Your task to perform on an android device: see creations saved in the google photos Image 0: 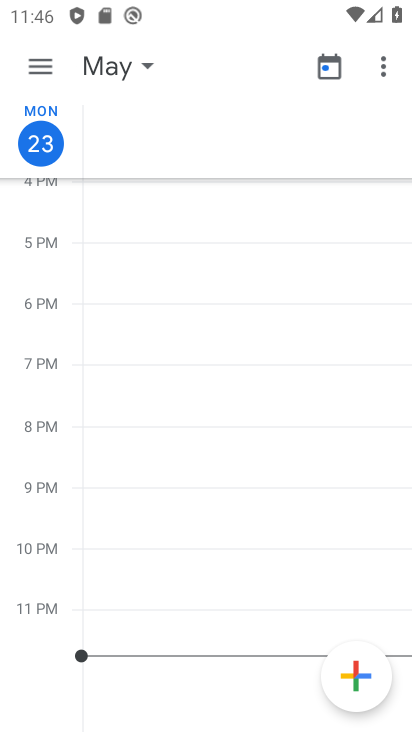
Step 0: press home button
Your task to perform on an android device: see creations saved in the google photos Image 1: 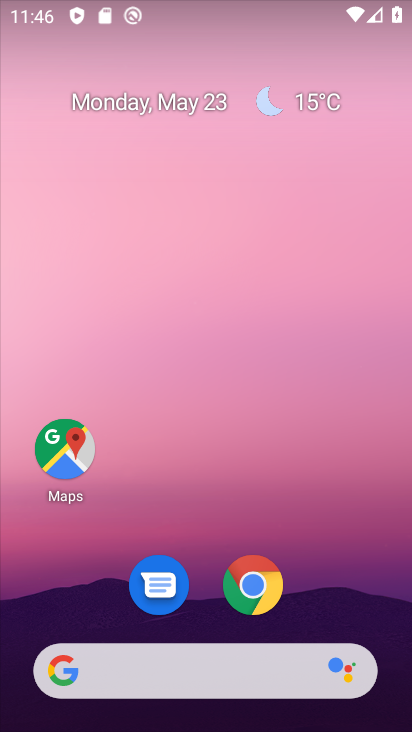
Step 1: drag from (192, 437) to (165, 16)
Your task to perform on an android device: see creations saved in the google photos Image 2: 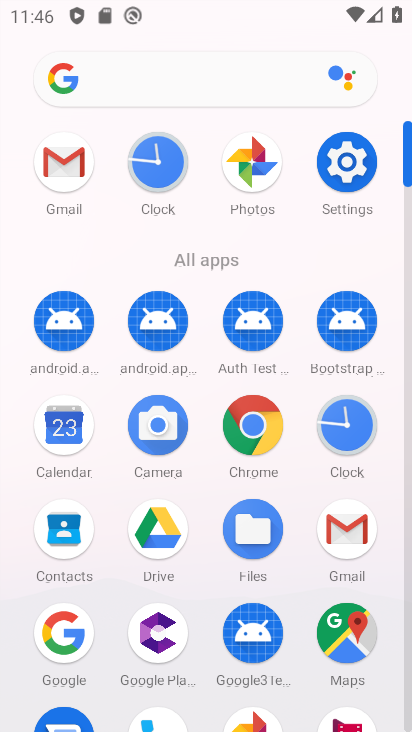
Step 2: click (239, 154)
Your task to perform on an android device: see creations saved in the google photos Image 3: 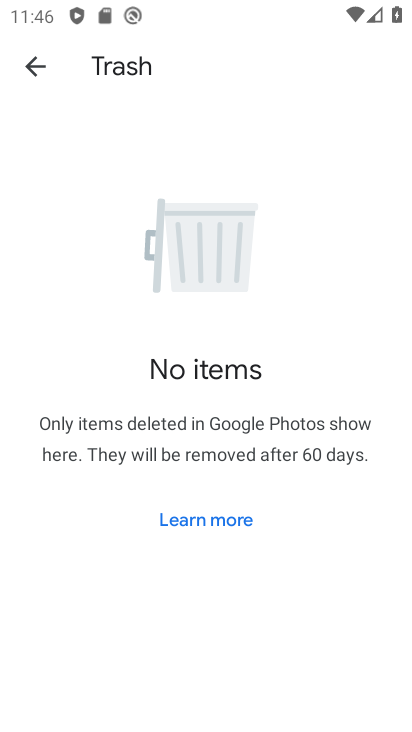
Step 3: click (36, 60)
Your task to perform on an android device: see creations saved in the google photos Image 4: 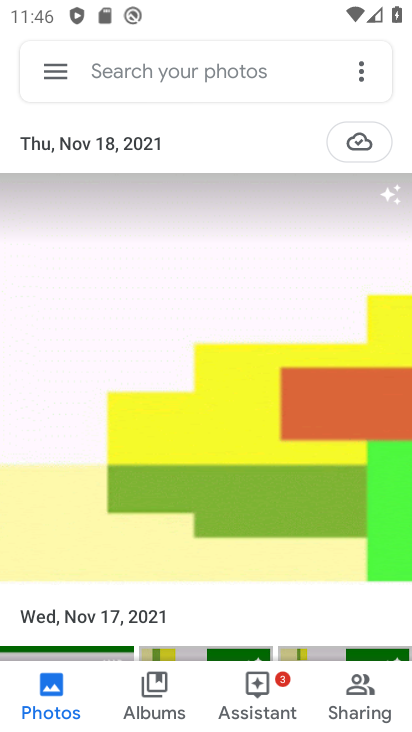
Step 4: click (149, 64)
Your task to perform on an android device: see creations saved in the google photos Image 5: 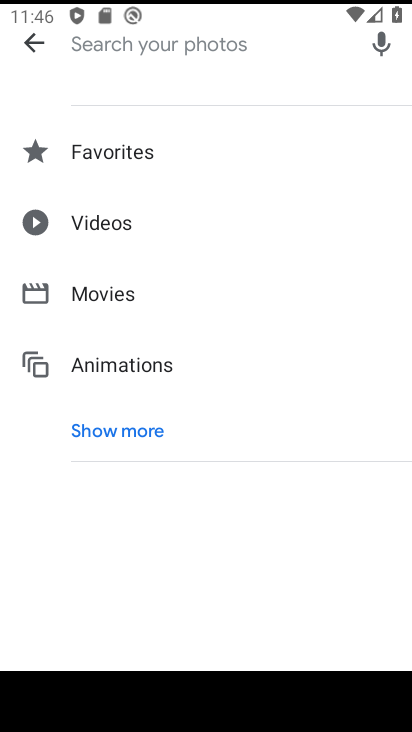
Step 5: click (144, 431)
Your task to perform on an android device: see creations saved in the google photos Image 6: 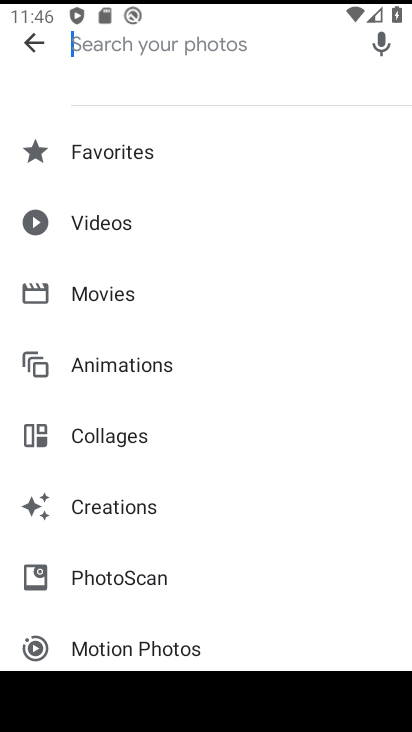
Step 6: click (147, 499)
Your task to perform on an android device: see creations saved in the google photos Image 7: 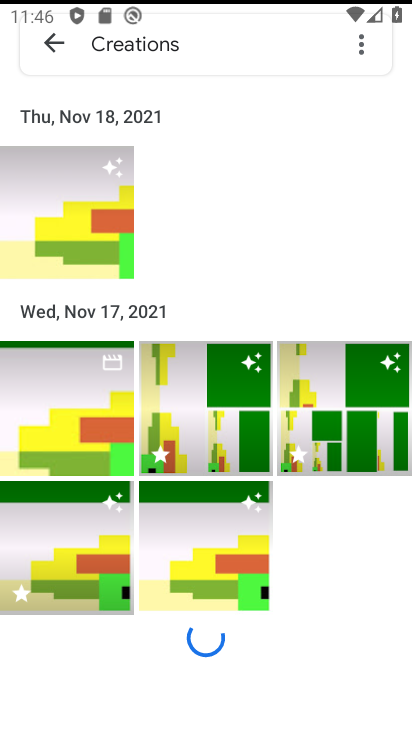
Step 7: task complete